Your task to perform on an android device: choose inbox layout in the gmail app Image 0: 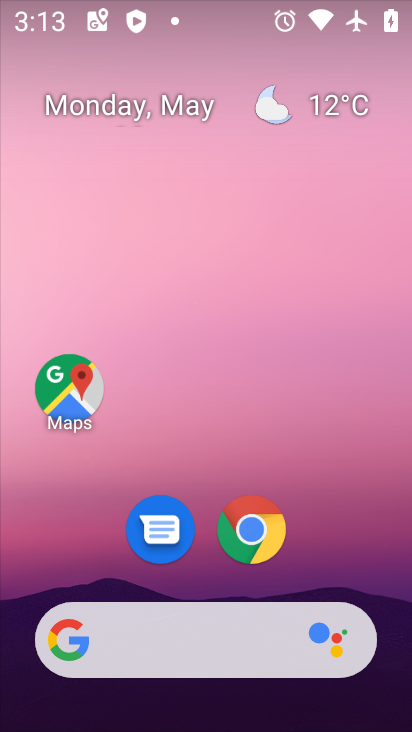
Step 0: drag from (329, 582) to (349, 31)
Your task to perform on an android device: choose inbox layout in the gmail app Image 1: 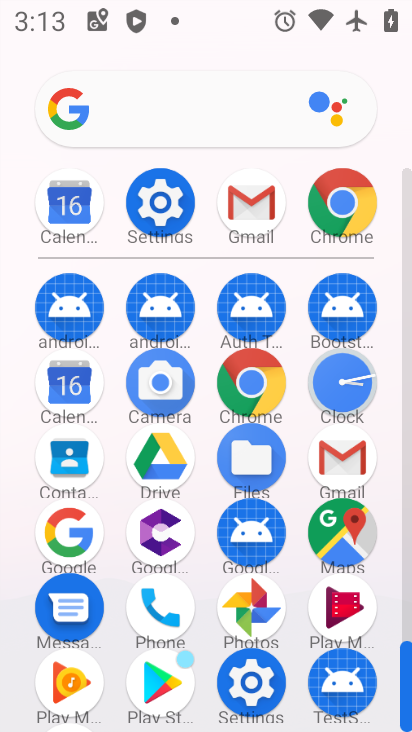
Step 1: click (250, 198)
Your task to perform on an android device: choose inbox layout in the gmail app Image 2: 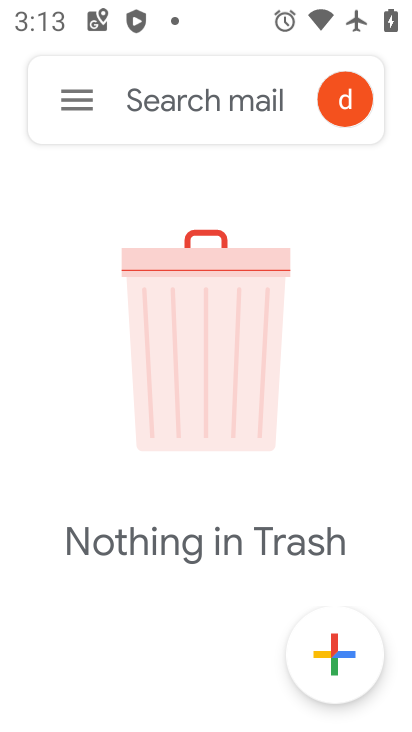
Step 2: click (73, 100)
Your task to perform on an android device: choose inbox layout in the gmail app Image 3: 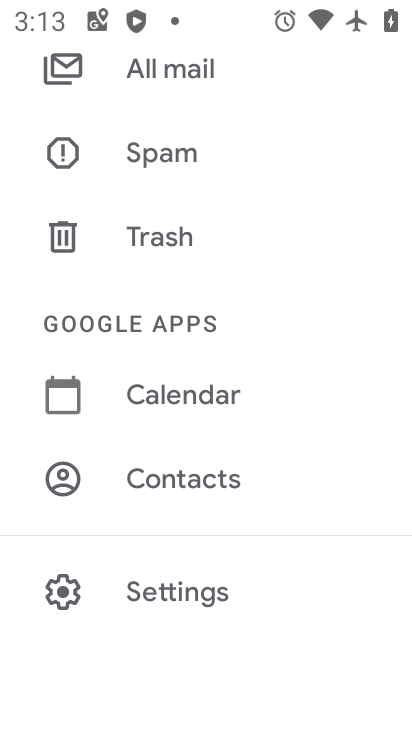
Step 3: click (182, 603)
Your task to perform on an android device: choose inbox layout in the gmail app Image 4: 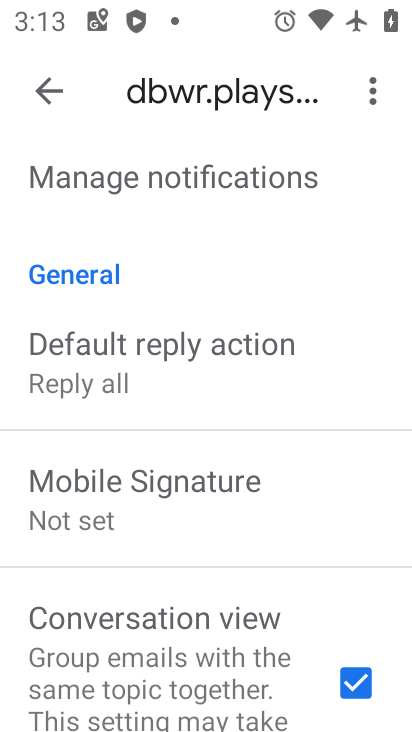
Step 4: drag from (153, 271) to (235, 575)
Your task to perform on an android device: choose inbox layout in the gmail app Image 5: 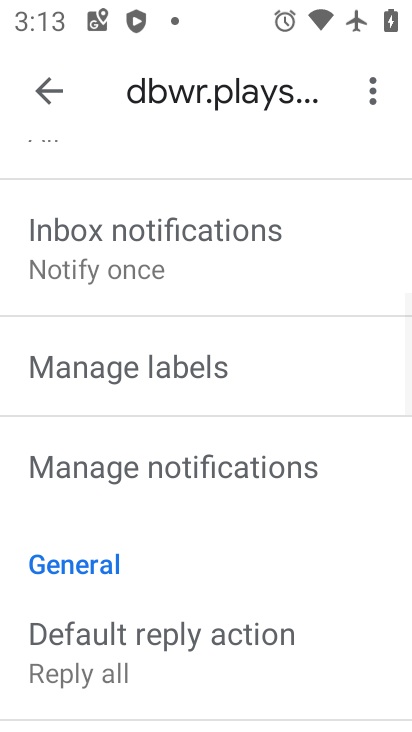
Step 5: drag from (258, 348) to (314, 568)
Your task to perform on an android device: choose inbox layout in the gmail app Image 6: 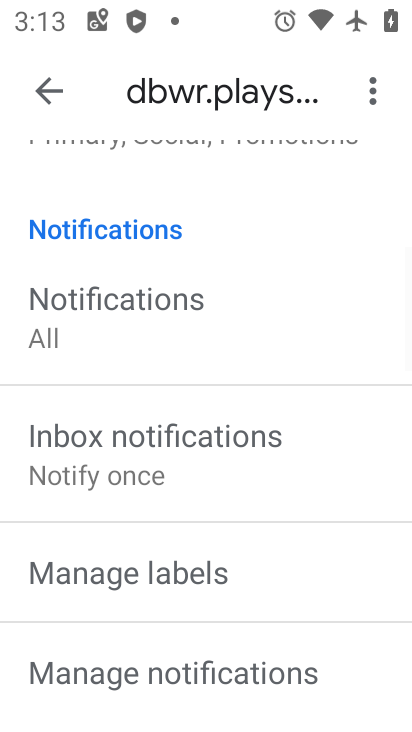
Step 6: drag from (231, 294) to (306, 445)
Your task to perform on an android device: choose inbox layout in the gmail app Image 7: 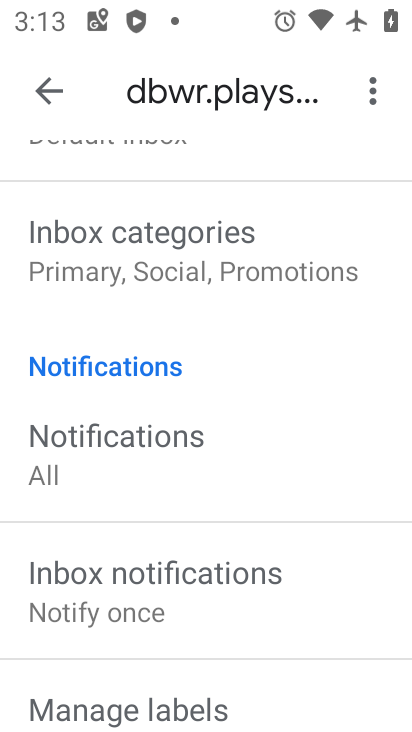
Step 7: drag from (273, 239) to (318, 418)
Your task to perform on an android device: choose inbox layout in the gmail app Image 8: 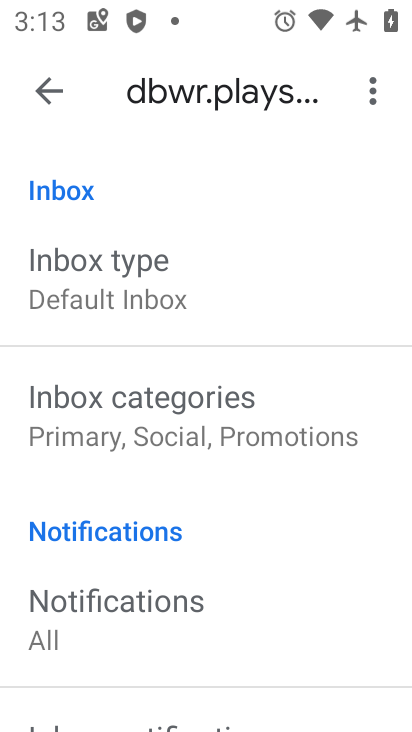
Step 8: click (196, 268)
Your task to perform on an android device: choose inbox layout in the gmail app Image 9: 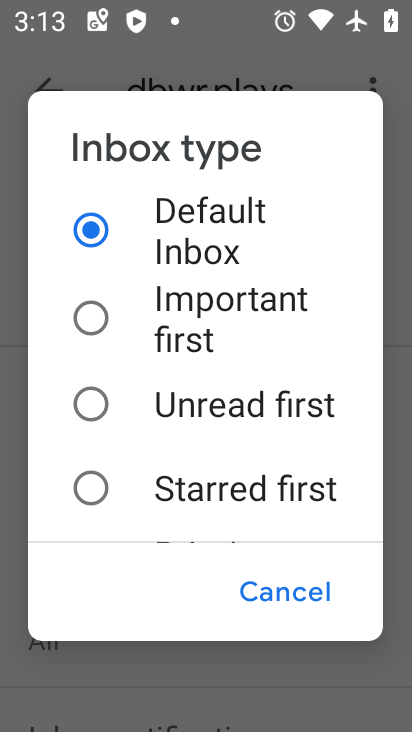
Step 9: click (160, 359)
Your task to perform on an android device: choose inbox layout in the gmail app Image 10: 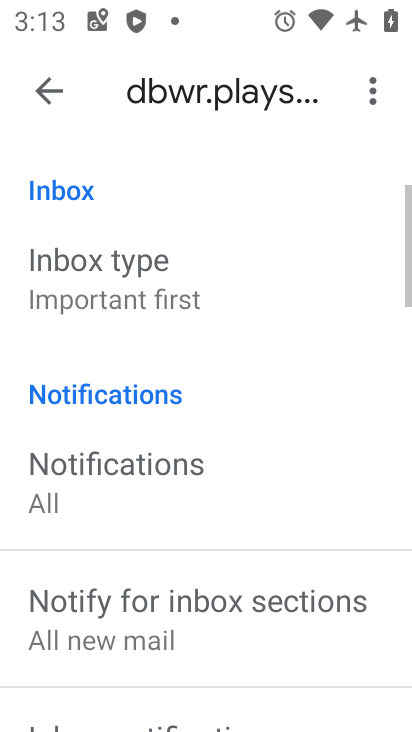
Step 10: task complete